Your task to perform on an android device: toggle improve location accuracy Image 0: 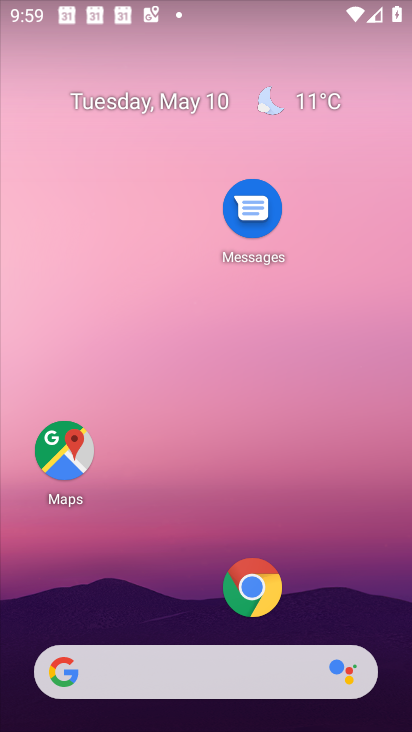
Step 0: drag from (146, 585) to (220, 83)
Your task to perform on an android device: toggle improve location accuracy Image 1: 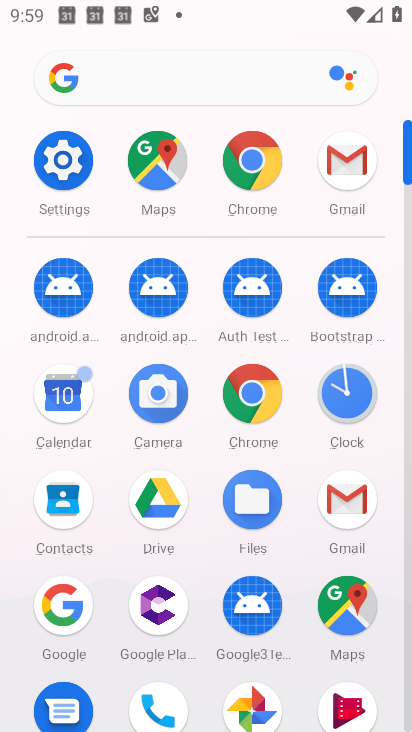
Step 1: click (46, 141)
Your task to perform on an android device: toggle improve location accuracy Image 2: 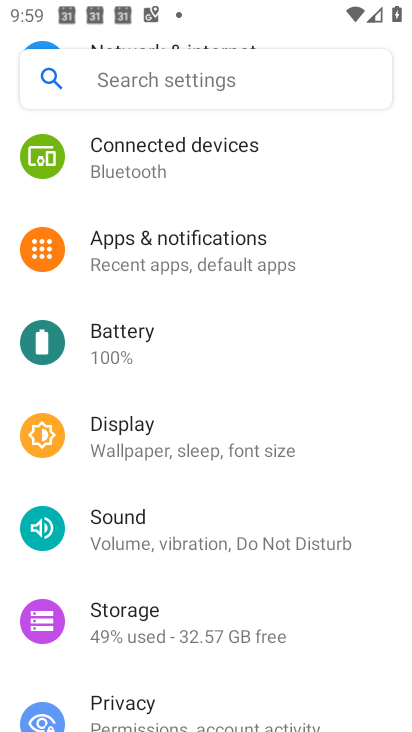
Step 2: drag from (223, 338) to (298, 244)
Your task to perform on an android device: toggle improve location accuracy Image 3: 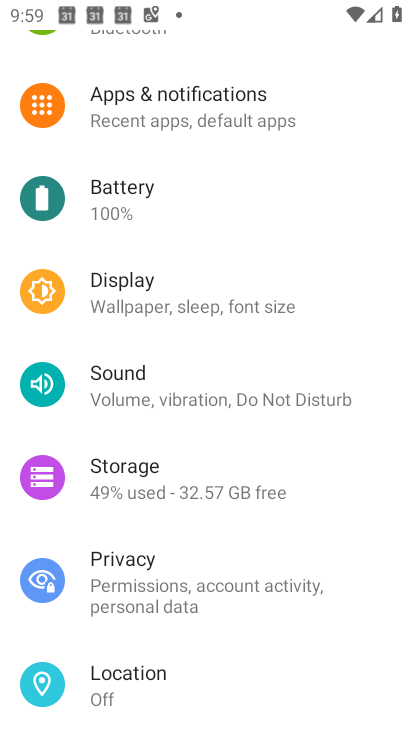
Step 3: click (132, 707)
Your task to perform on an android device: toggle improve location accuracy Image 4: 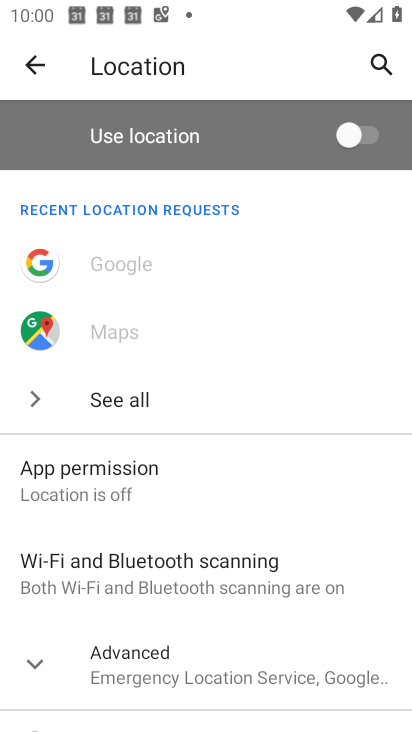
Step 4: click (157, 665)
Your task to perform on an android device: toggle improve location accuracy Image 5: 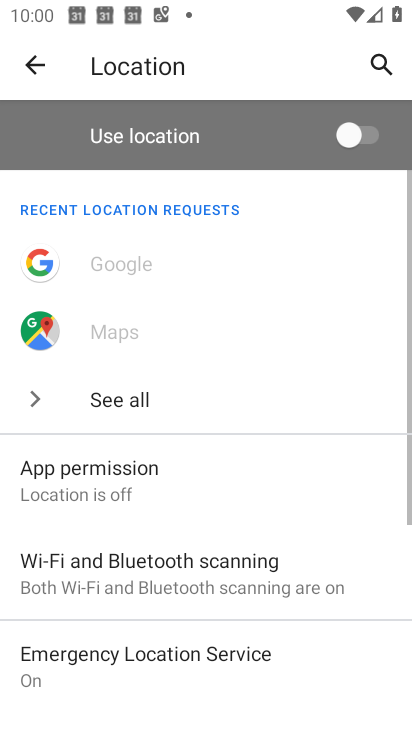
Step 5: drag from (152, 659) to (213, 262)
Your task to perform on an android device: toggle improve location accuracy Image 6: 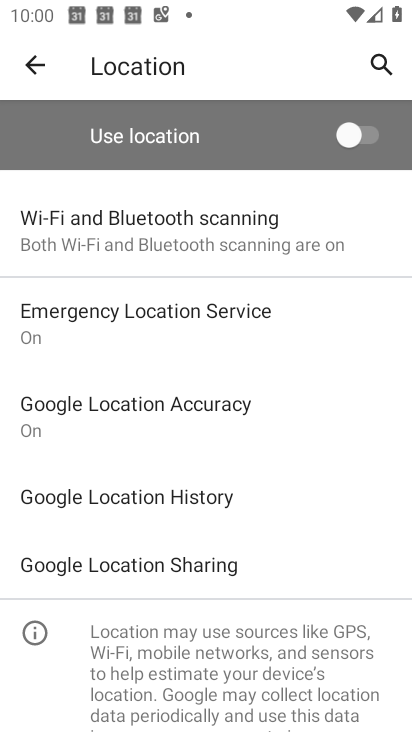
Step 6: click (172, 423)
Your task to perform on an android device: toggle improve location accuracy Image 7: 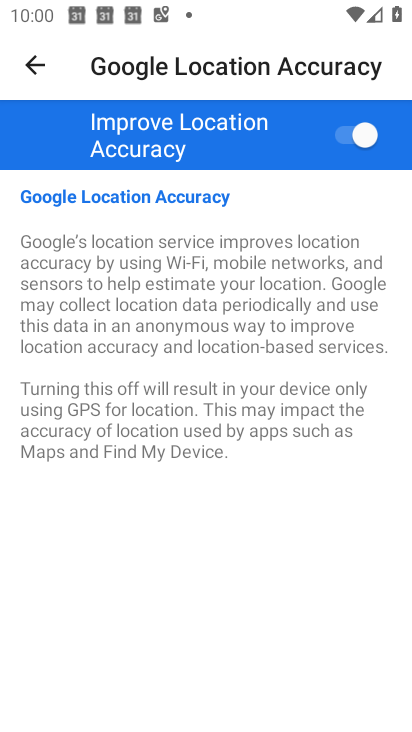
Step 7: click (335, 145)
Your task to perform on an android device: toggle improve location accuracy Image 8: 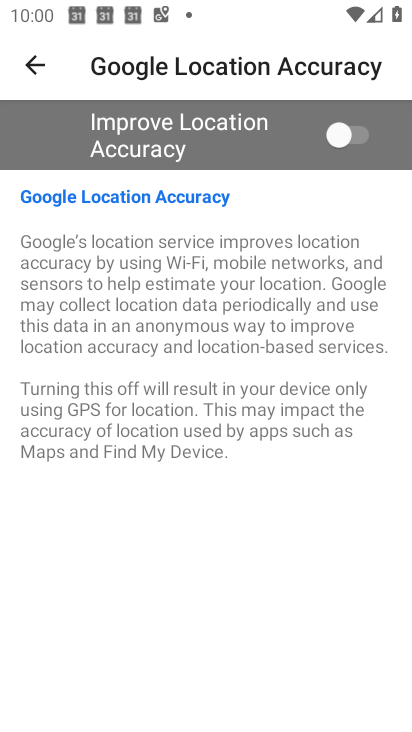
Step 8: task complete